Your task to perform on an android device: Go to Google Image 0: 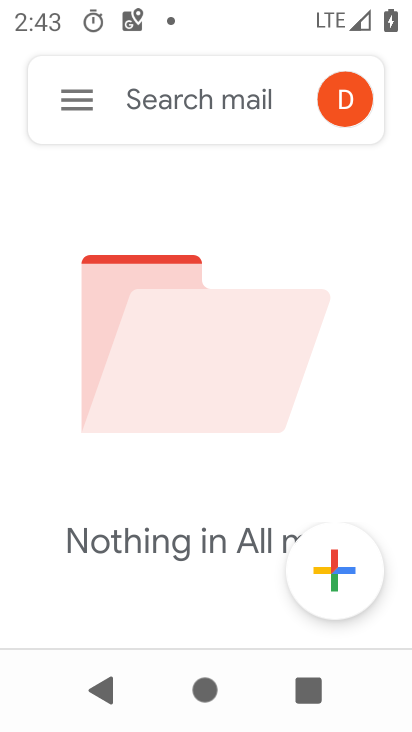
Step 0: press home button
Your task to perform on an android device: Go to Google Image 1: 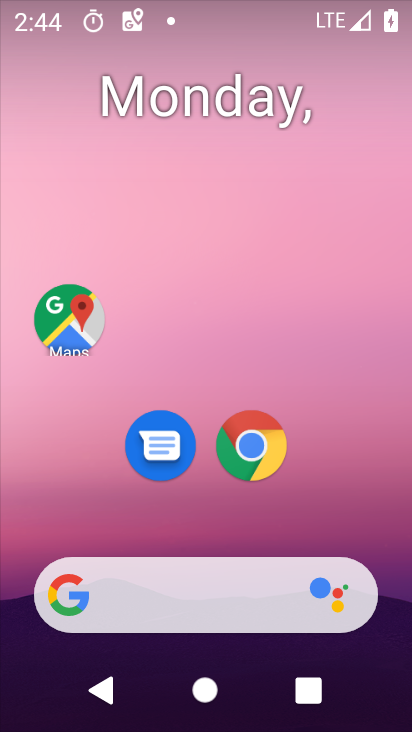
Step 1: drag from (195, 618) to (204, 314)
Your task to perform on an android device: Go to Google Image 2: 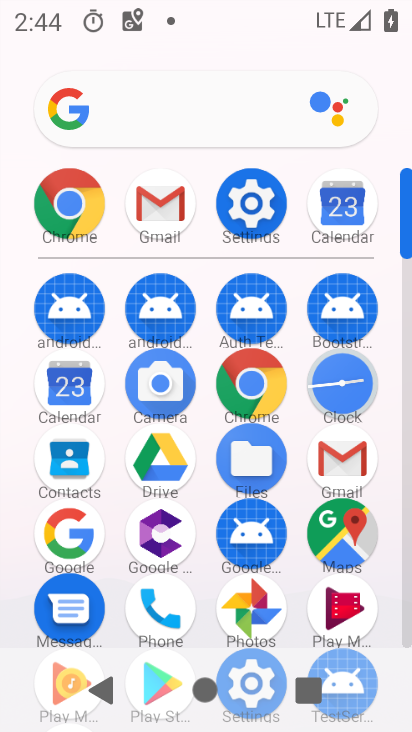
Step 2: click (61, 546)
Your task to perform on an android device: Go to Google Image 3: 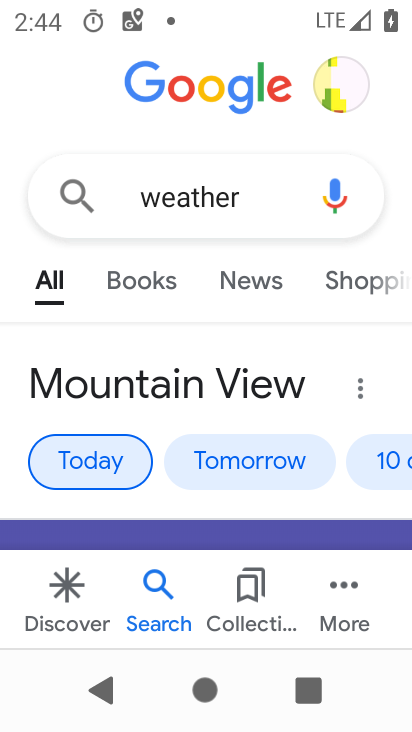
Step 3: task complete